Your task to perform on an android device: Open privacy settings Image 0: 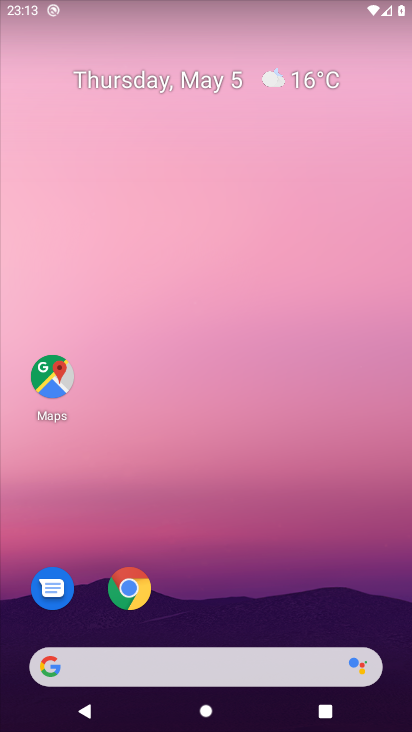
Step 0: drag from (240, 602) to (252, 235)
Your task to perform on an android device: Open privacy settings Image 1: 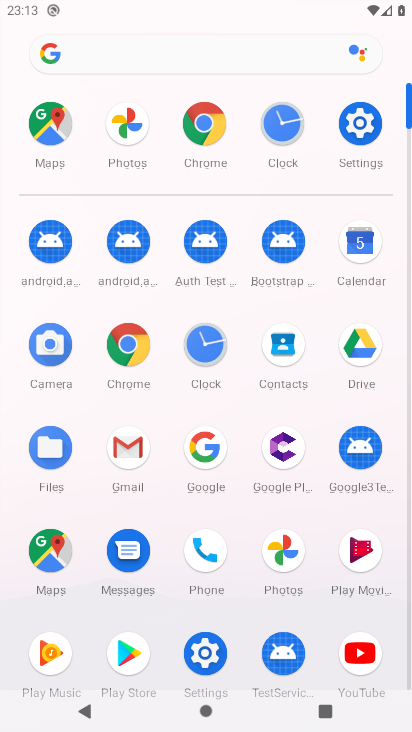
Step 1: click (364, 122)
Your task to perform on an android device: Open privacy settings Image 2: 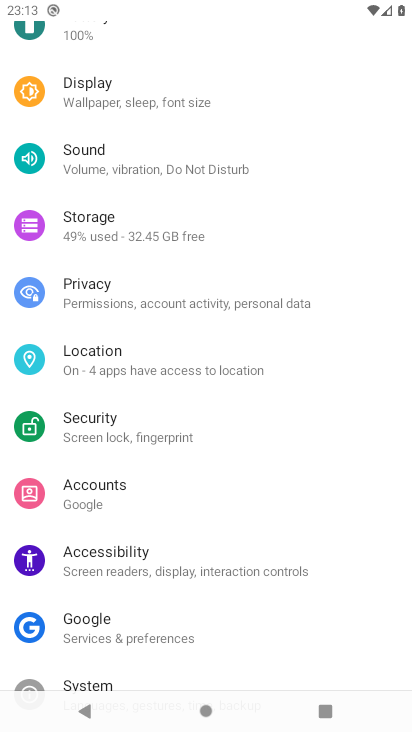
Step 2: click (193, 299)
Your task to perform on an android device: Open privacy settings Image 3: 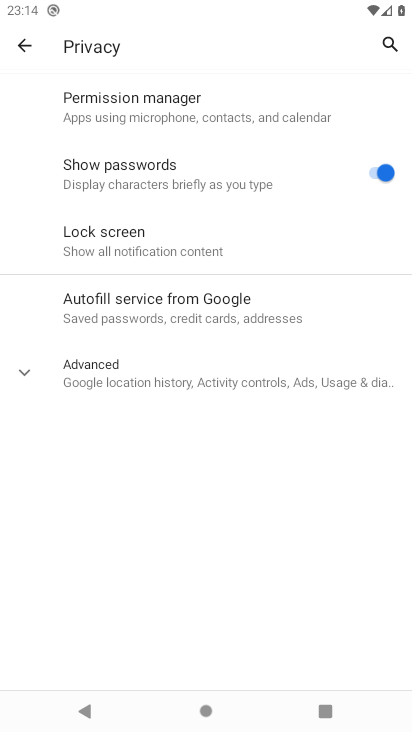
Step 3: task complete